Your task to perform on an android device: refresh tabs in the chrome app Image 0: 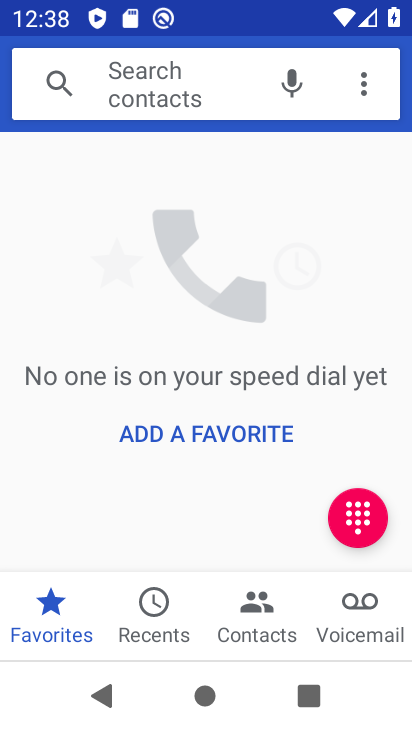
Step 0: press home button
Your task to perform on an android device: refresh tabs in the chrome app Image 1: 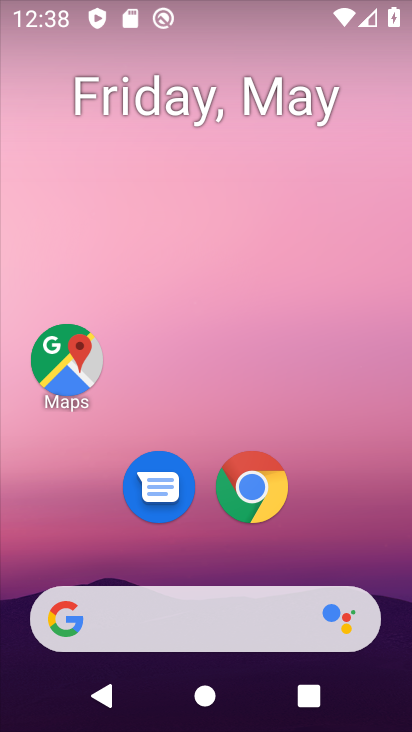
Step 1: click (260, 502)
Your task to perform on an android device: refresh tabs in the chrome app Image 2: 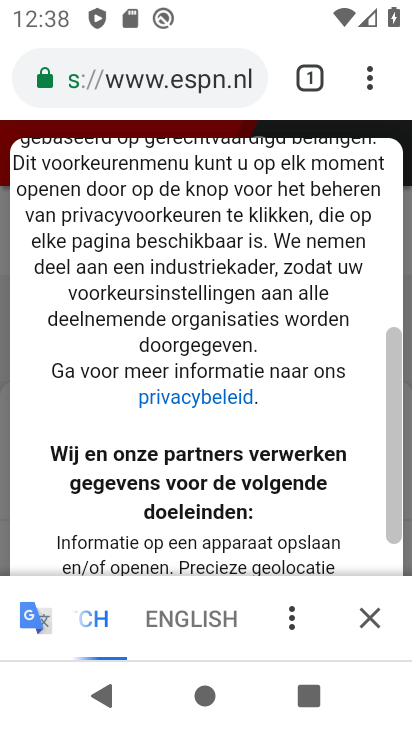
Step 2: click (366, 96)
Your task to perform on an android device: refresh tabs in the chrome app Image 3: 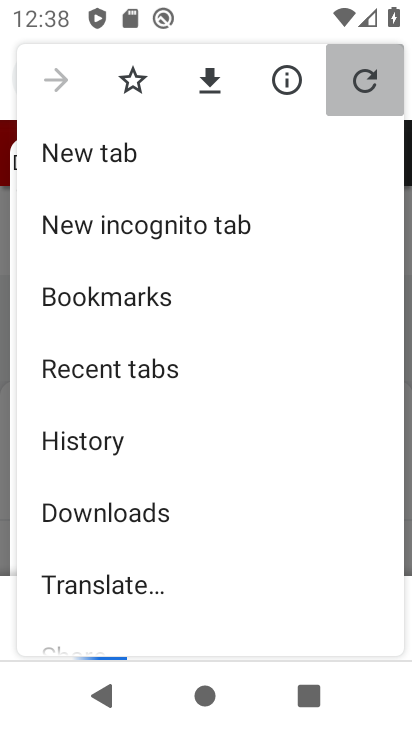
Step 3: click (371, 96)
Your task to perform on an android device: refresh tabs in the chrome app Image 4: 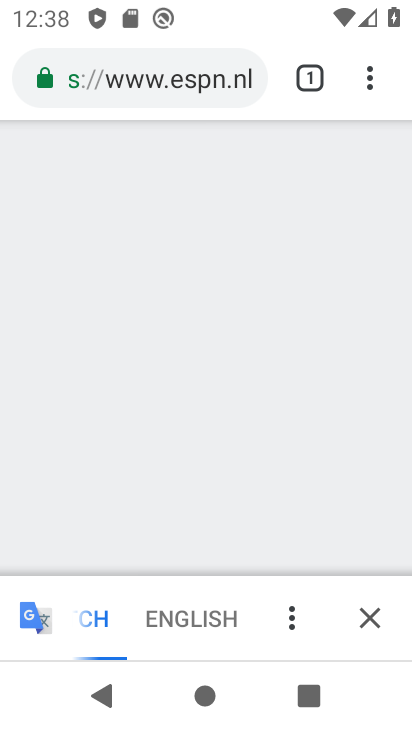
Step 4: task complete